Your task to perform on an android device: turn vacation reply on in the gmail app Image 0: 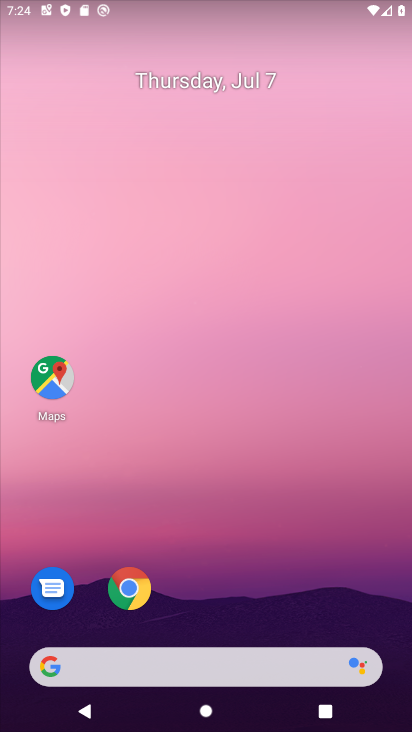
Step 0: drag from (242, 610) to (285, 57)
Your task to perform on an android device: turn vacation reply on in the gmail app Image 1: 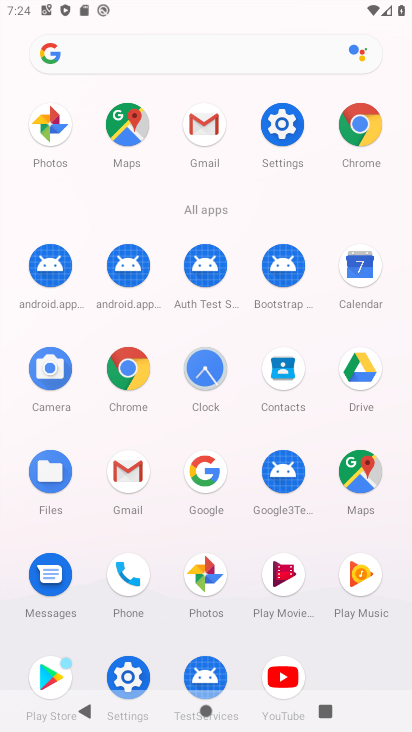
Step 1: drag from (281, 427) to (212, 131)
Your task to perform on an android device: turn vacation reply on in the gmail app Image 2: 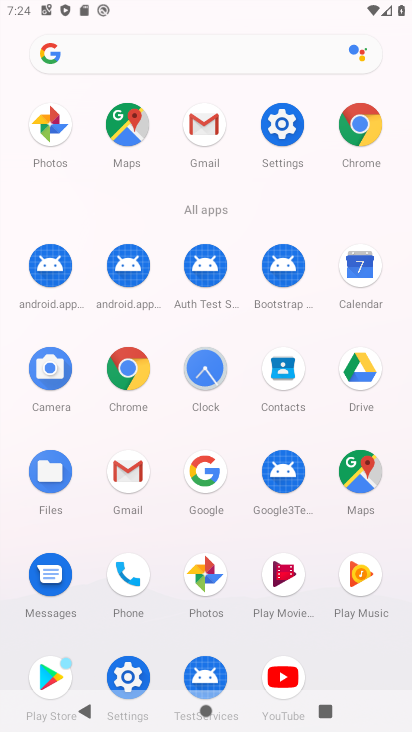
Step 2: drag from (281, 427) to (212, 131)
Your task to perform on an android device: turn vacation reply on in the gmail app Image 3: 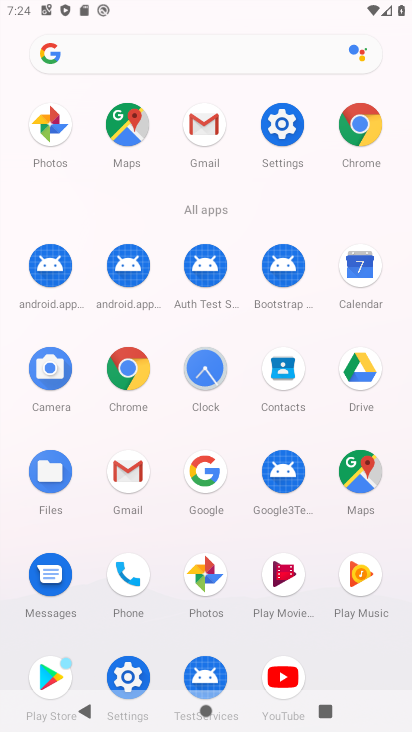
Step 3: click (199, 132)
Your task to perform on an android device: turn vacation reply on in the gmail app Image 4: 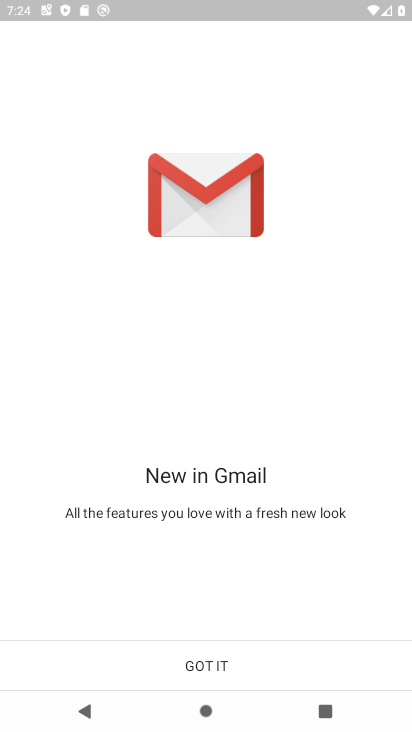
Step 4: click (202, 669)
Your task to perform on an android device: turn vacation reply on in the gmail app Image 5: 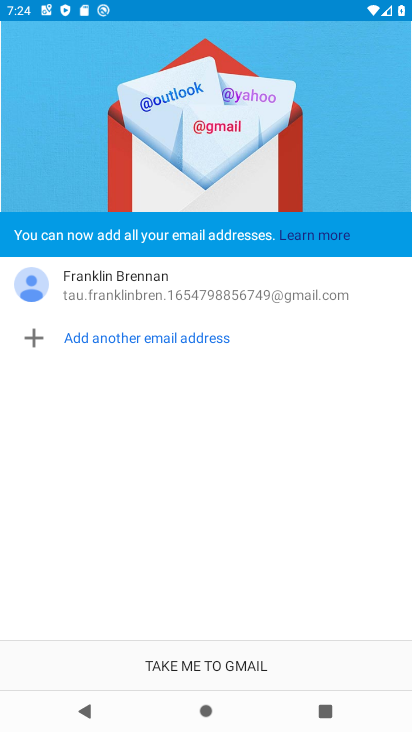
Step 5: click (239, 676)
Your task to perform on an android device: turn vacation reply on in the gmail app Image 6: 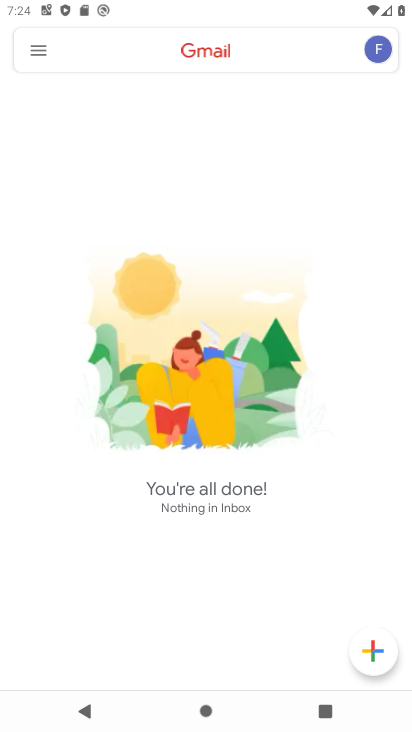
Step 6: click (43, 48)
Your task to perform on an android device: turn vacation reply on in the gmail app Image 7: 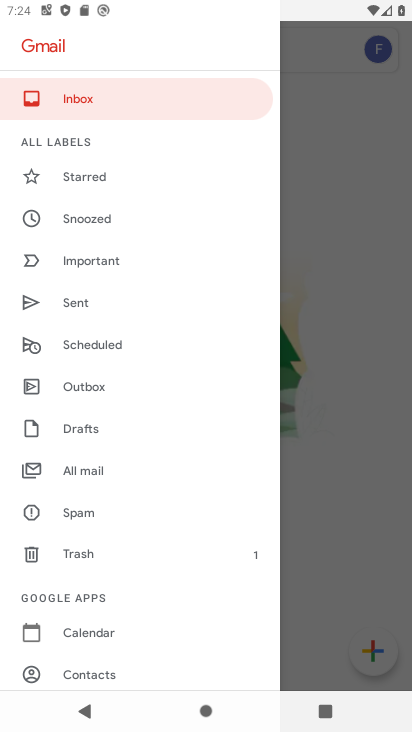
Step 7: drag from (122, 628) to (121, 244)
Your task to perform on an android device: turn vacation reply on in the gmail app Image 8: 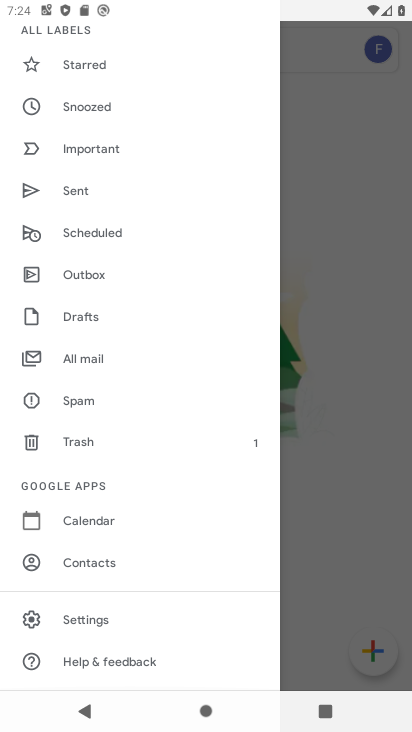
Step 8: click (149, 619)
Your task to perform on an android device: turn vacation reply on in the gmail app Image 9: 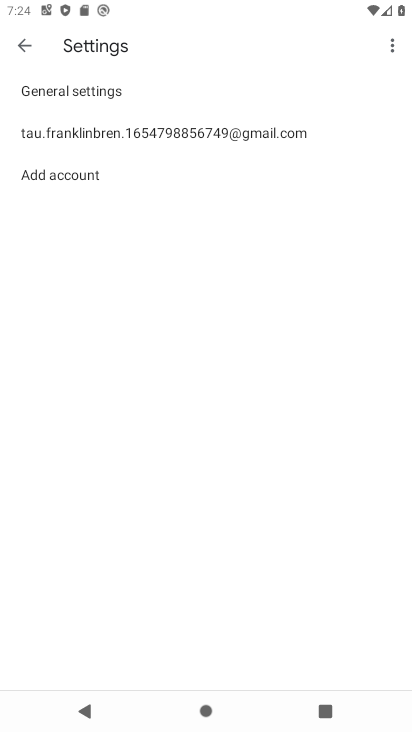
Step 9: click (135, 130)
Your task to perform on an android device: turn vacation reply on in the gmail app Image 10: 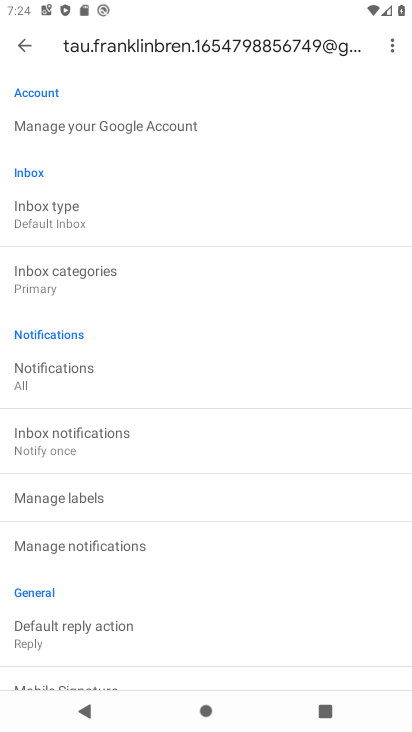
Step 10: drag from (134, 622) to (164, 252)
Your task to perform on an android device: turn vacation reply on in the gmail app Image 11: 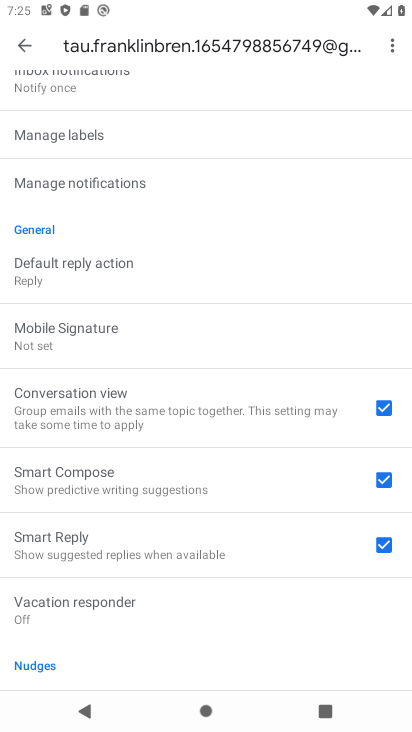
Step 11: click (127, 615)
Your task to perform on an android device: turn vacation reply on in the gmail app Image 12: 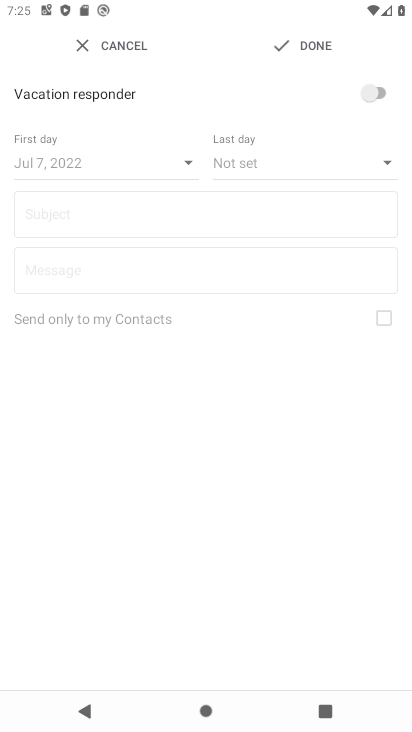
Step 12: click (372, 101)
Your task to perform on an android device: turn vacation reply on in the gmail app Image 13: 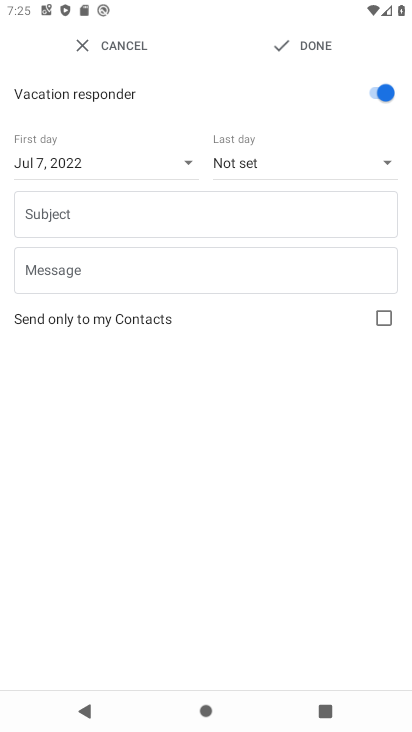
Step 13: task complete